Your task to perform on an android device: Open Youtube and go to the subscriptions tab Image 0: 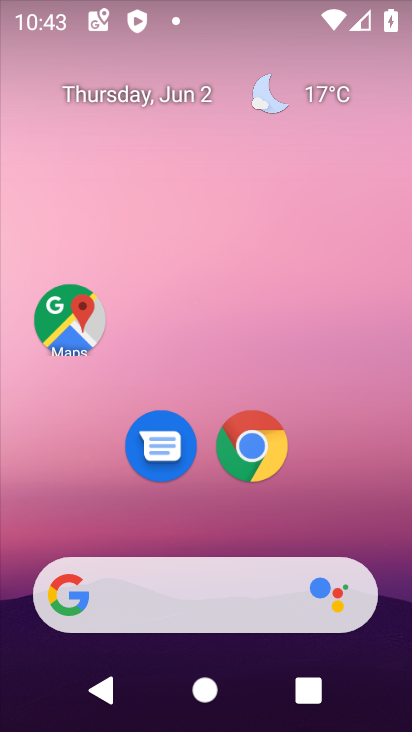
Step 0: drag from (373, 512) to (370, 153)
Your task to perform on an android device: Open Youtube and go to the subscriptions tab Image 1: 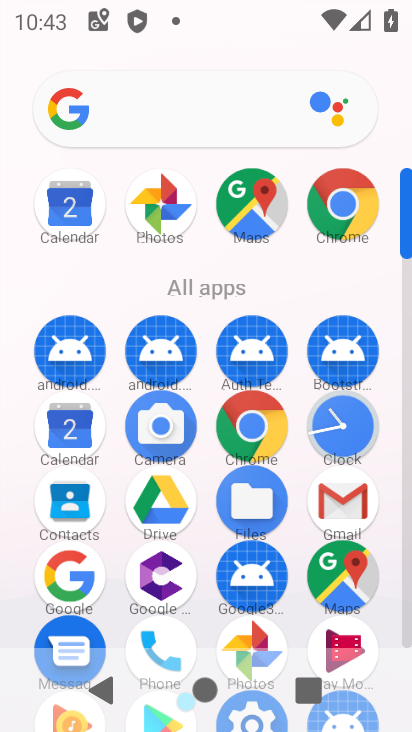
Step 1: drag from (382, 466) to (395, 200)
Your task to perform on an android device: Open Youtube and go to the subscriptions tab Image 2: 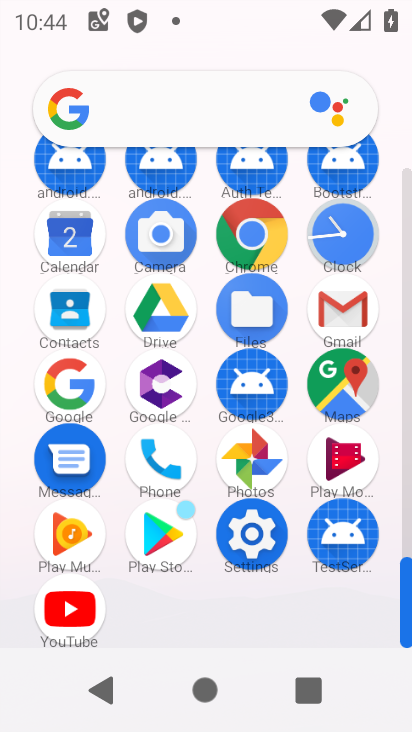
Step 2: click (69, 613)
Your task to perform on an android device: Open Youtube and go to the subscriptions tab Image 3: 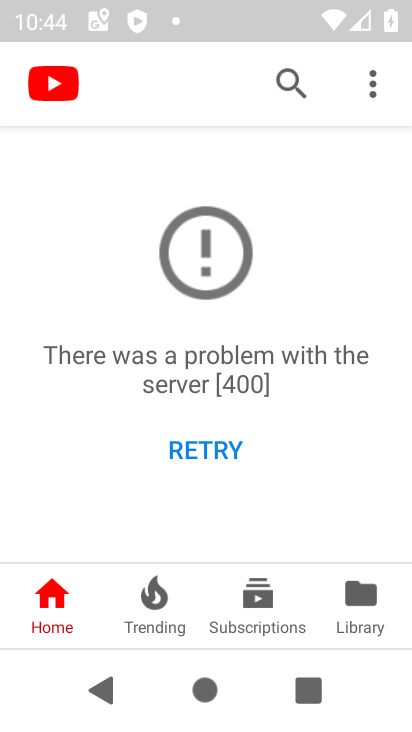
Step 3: click (253, 592)
Your task to perform on an android device: Open Youtube and go to the subscriptions tab Image 4: 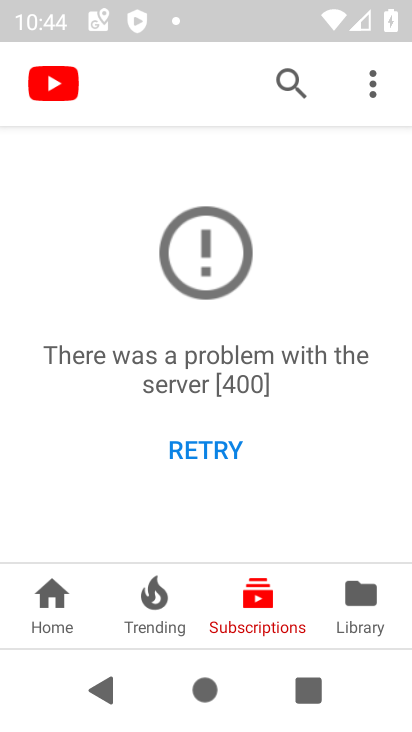
Step 4: task complete